Your task to perform on an android device: open device folders in google photos Image 0: 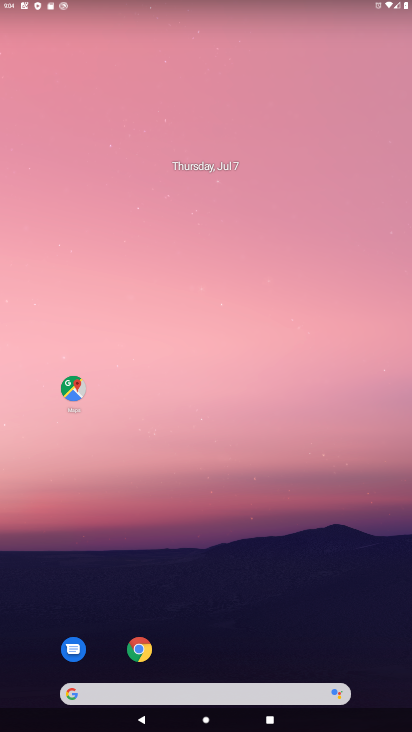
Step 0: drag from (384, 248) to (317, 252)
Your task to perform on an android device: open device folders in google photos Image 1: 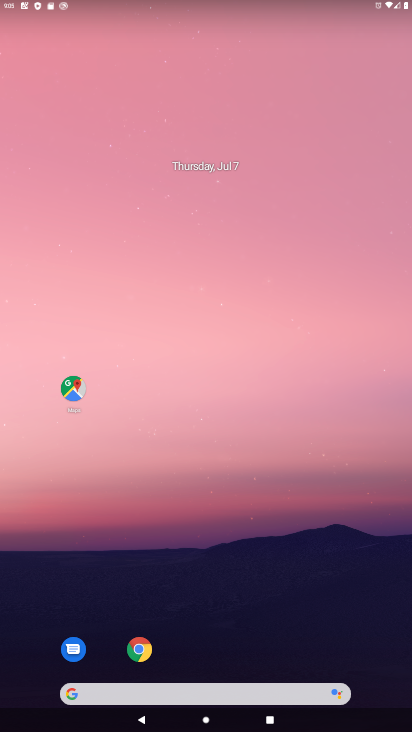
Step 1: drag from (289, 679) to (223, 12)
Your task to perform on an android device: open device folders in google photos Image 2: 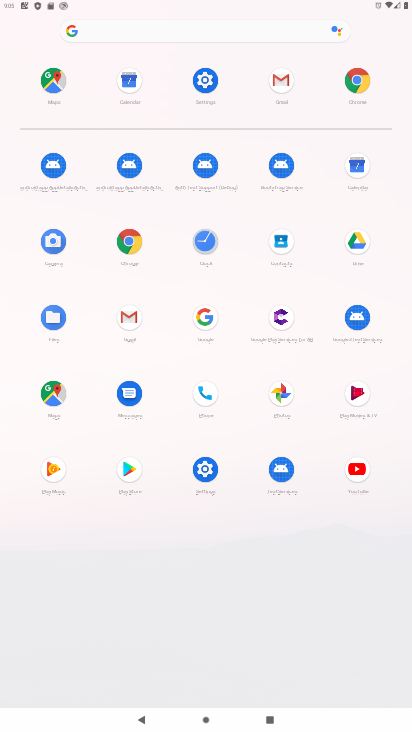
Step 2: click (289, 387)
Your task to perform on an android device: open device folders in google photos Image 3: 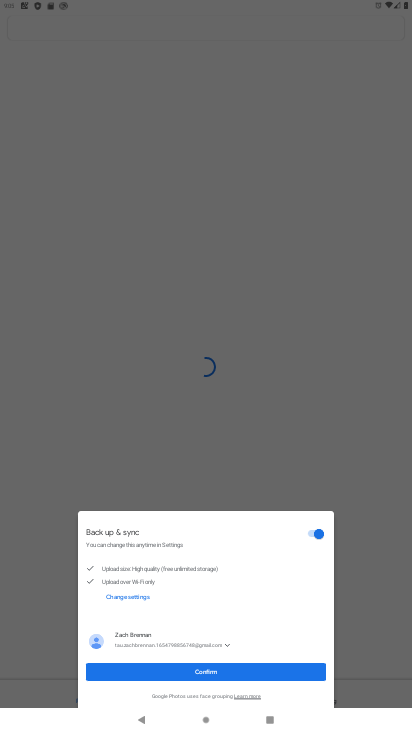
Step 3: click (228, 677)
Your task to perform on an android device: open device folders in google photos Image 4: 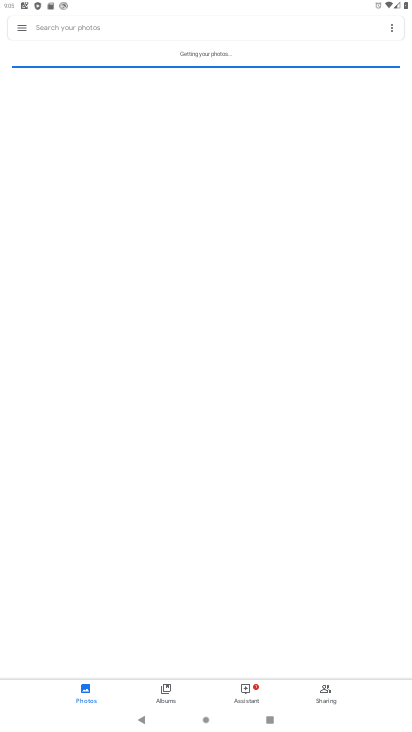
Step 4: click (23, 31)
Your task to perform on an android device: open device folders in google photos Image 5: 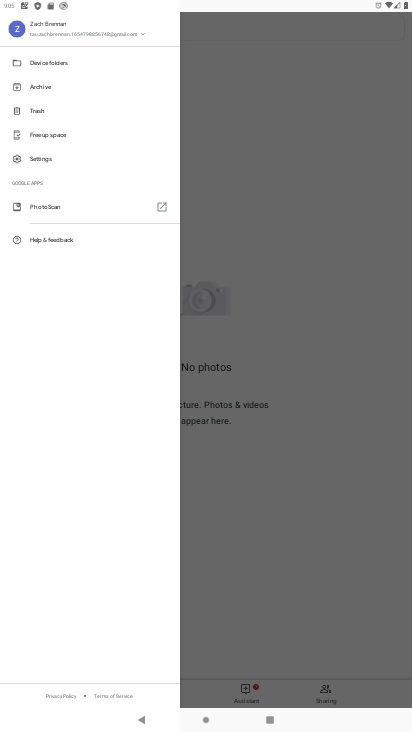
Step 5: click (49, 63)
Your task to perform on an android device: open device folders in google photos Image 6: 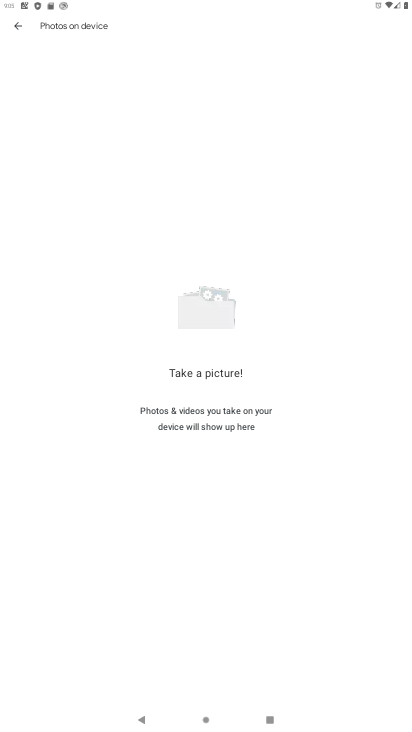
Step 6: task complete